Your task to perform on an android device: open app "Google Play Music" (install if not already installed) Image 0: 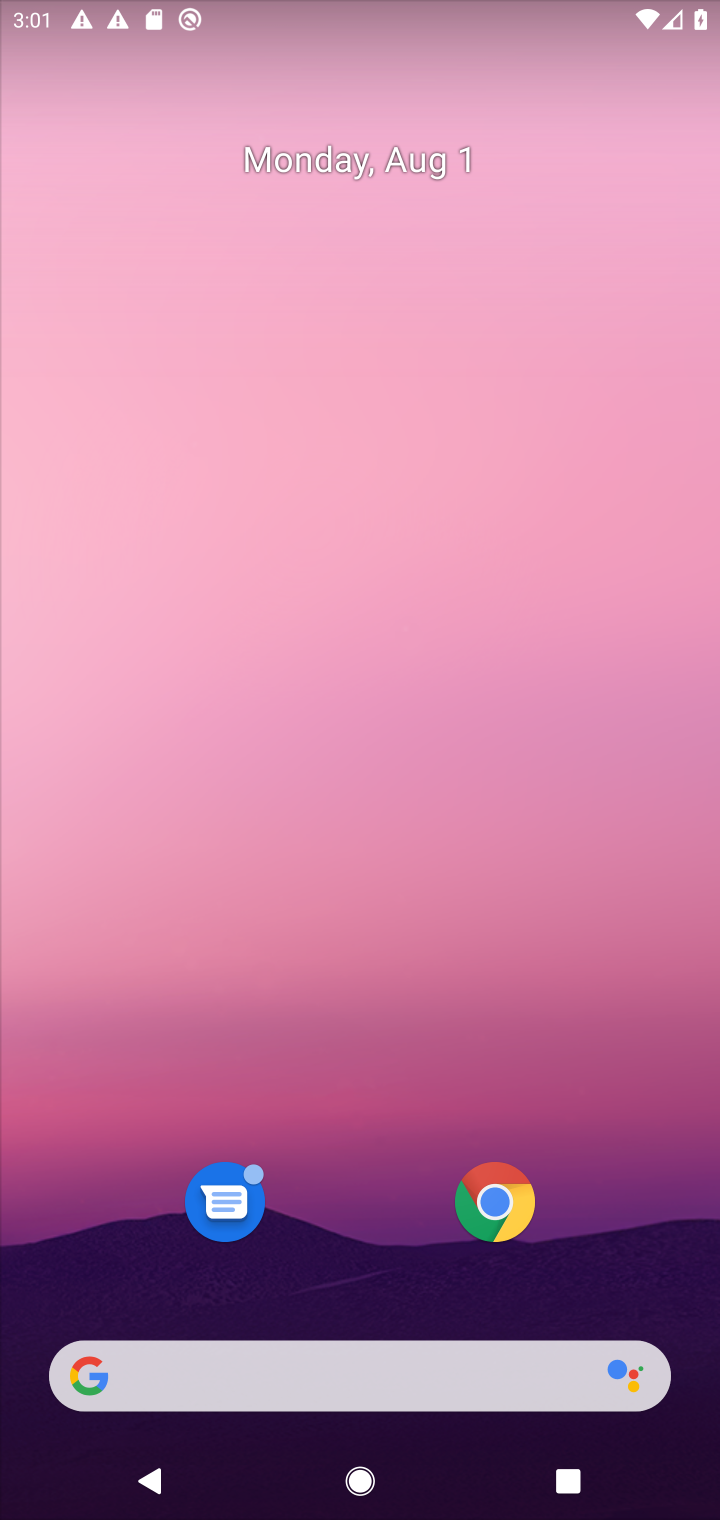
Step 0: drag from (357, 1270) to (384, 263)
Your task to perform on an android device: open app "Google Play Music" (install if not already installed) Image 1: 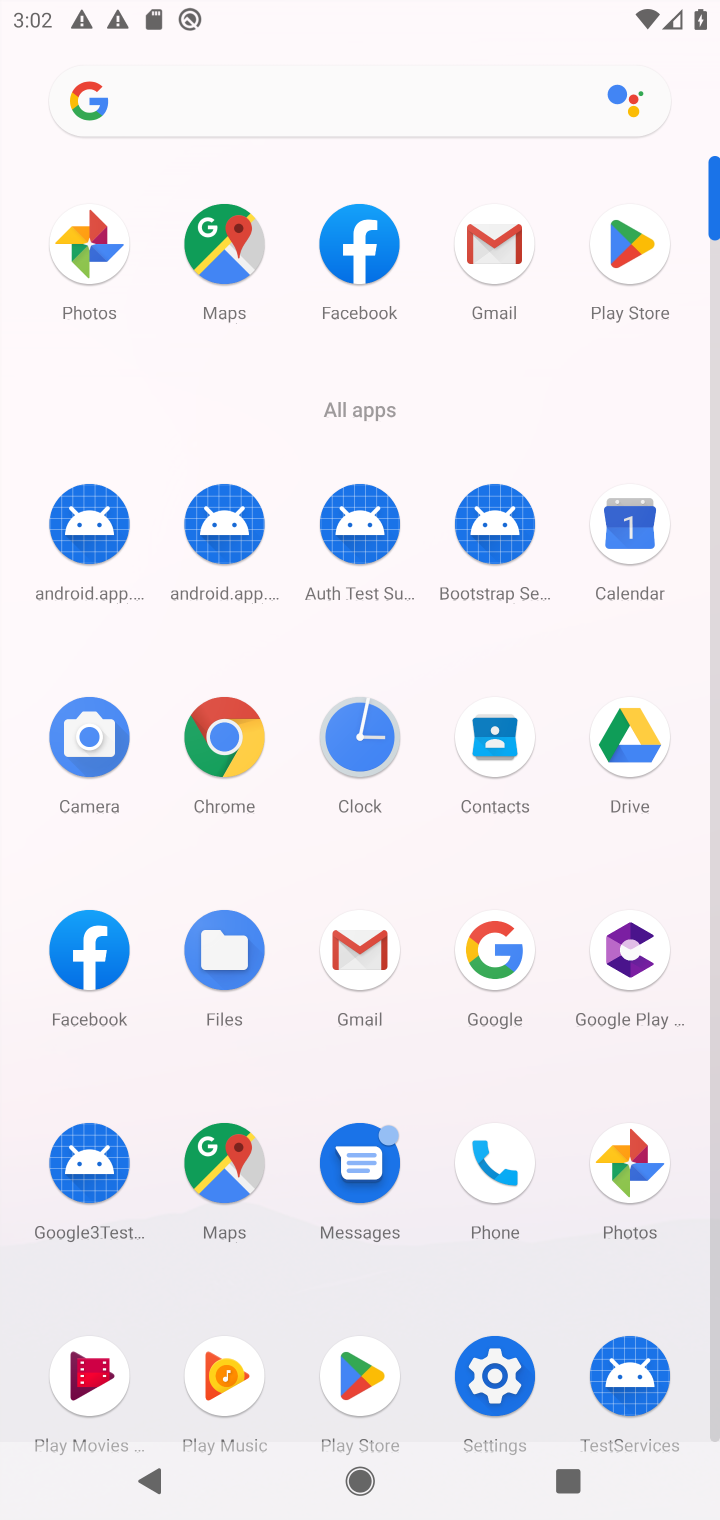
Step 1: click (626, 248)
Your task to perform on an android device: open app "Google Play Music" (install if not already installed) Image 2: 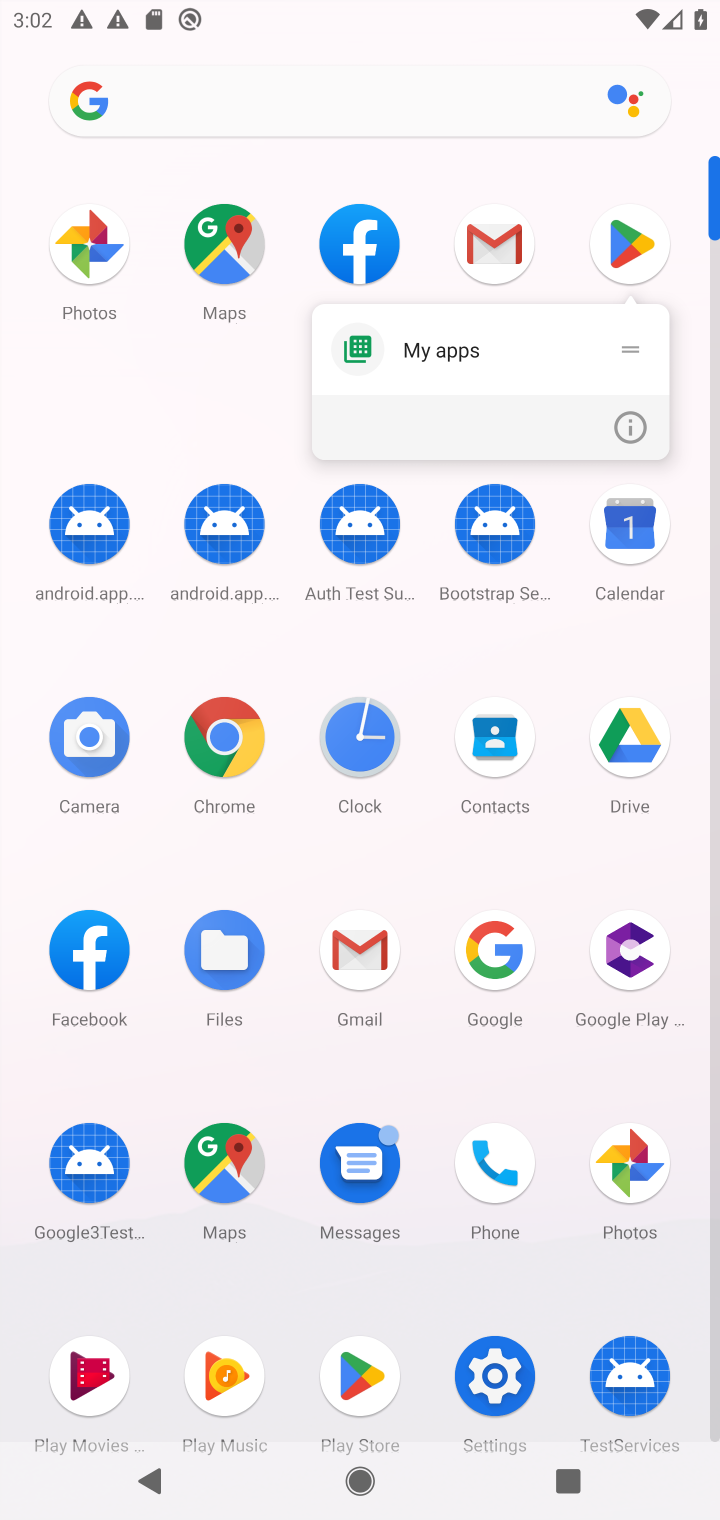
Step 2: click (625, 239)
Your task to perform on an android device: open app "Google Play Music" (install if not already installed) Image 3: 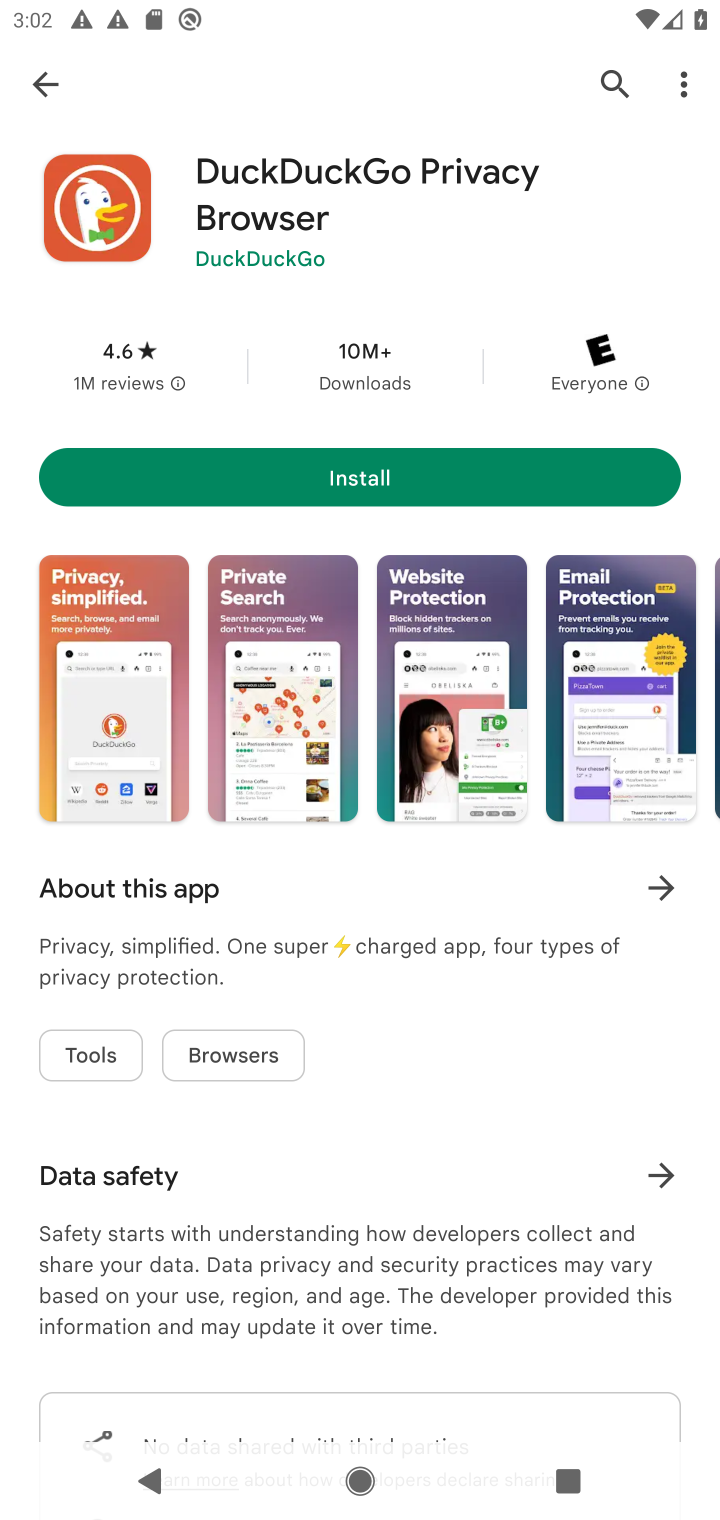
Step 3: click (602, 76)
Your task to perform on an android device: open app "Google Play Music" (install if not already installed) Image 4: 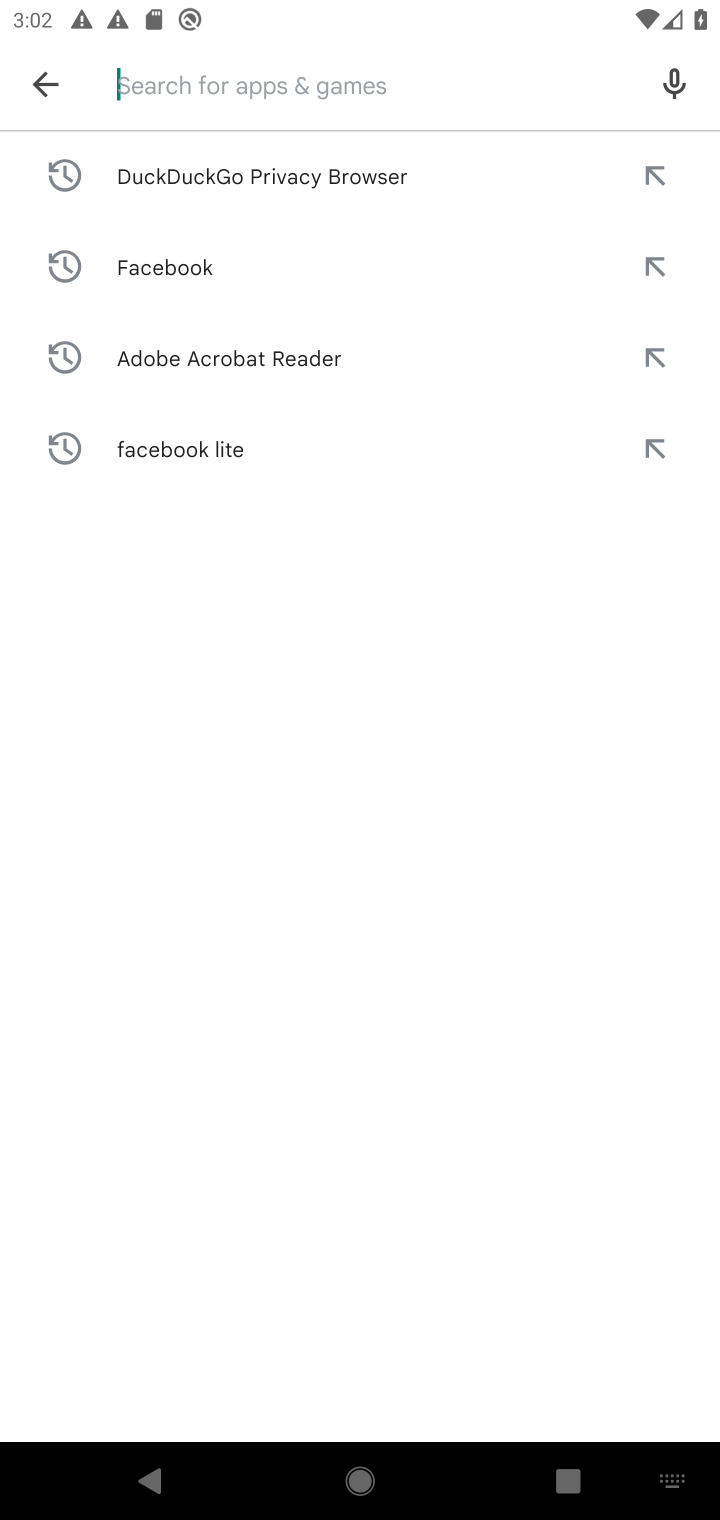
Step 4: type "Google Play Music"
Your task to perform on an android device: open app "Google Play Music" (install if not already installed) Image 5: 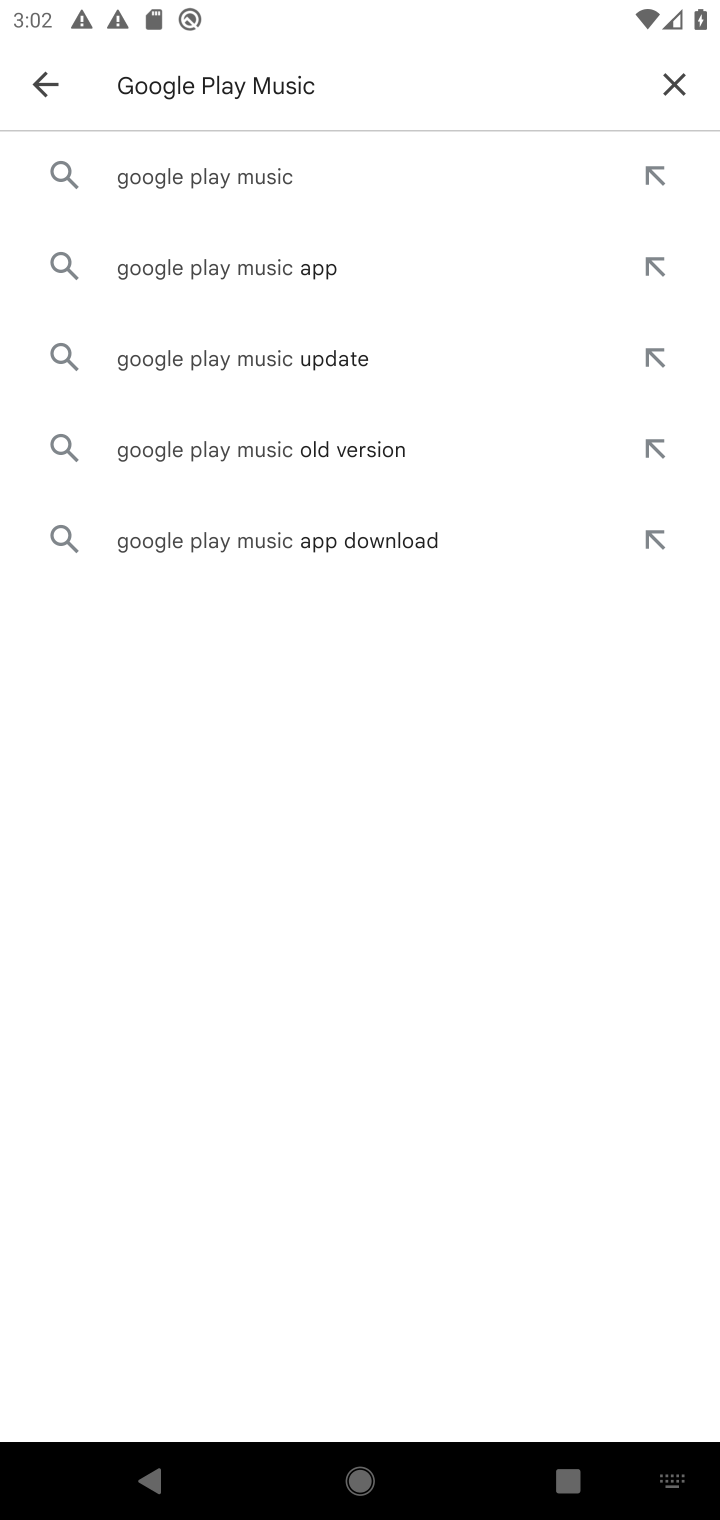
Step 5: press enter
Your task to perform on an android device: open app "Google Play Music" (install if not already installed) Image 6: 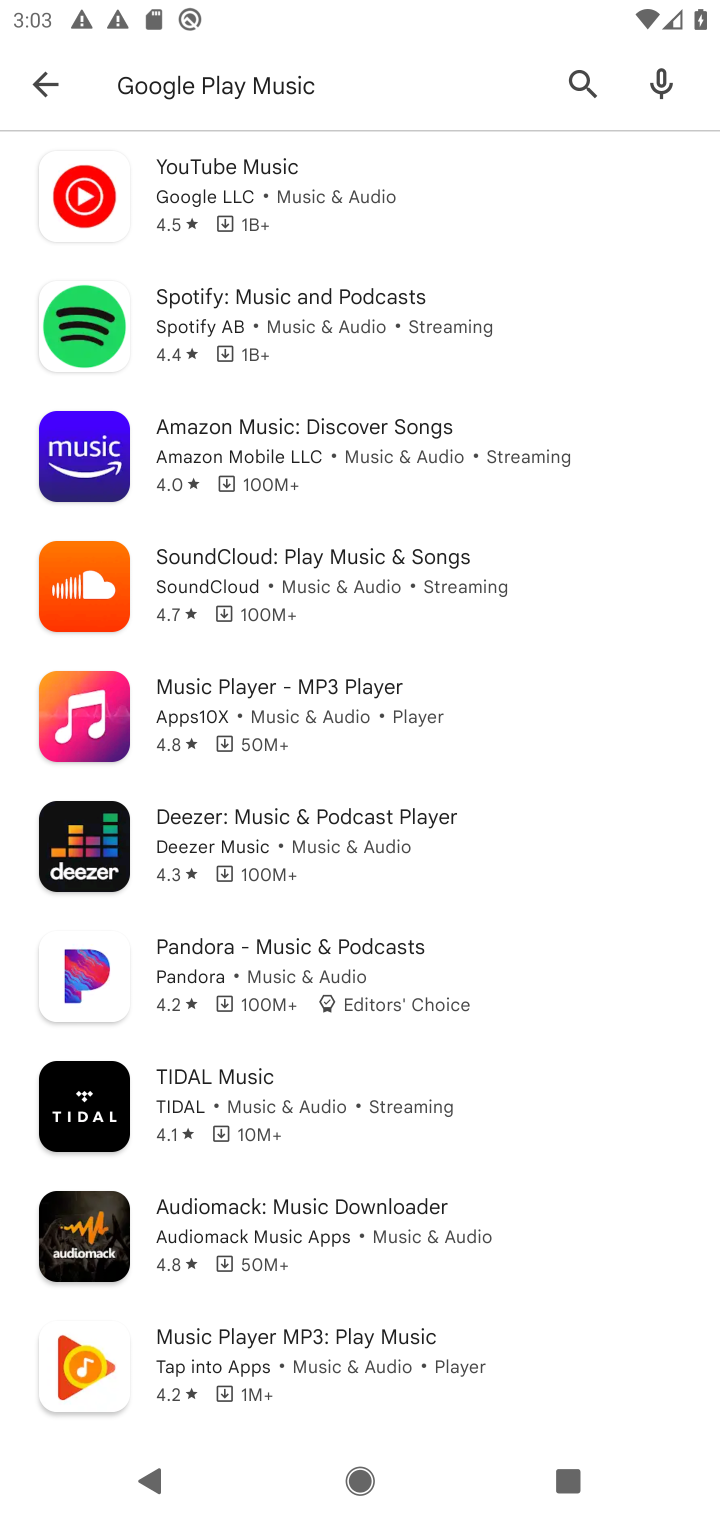
Step 6: click (253, 180)
Your task to perform on an android device: open app "Google Play Music" (install if not already installed) Image 7: 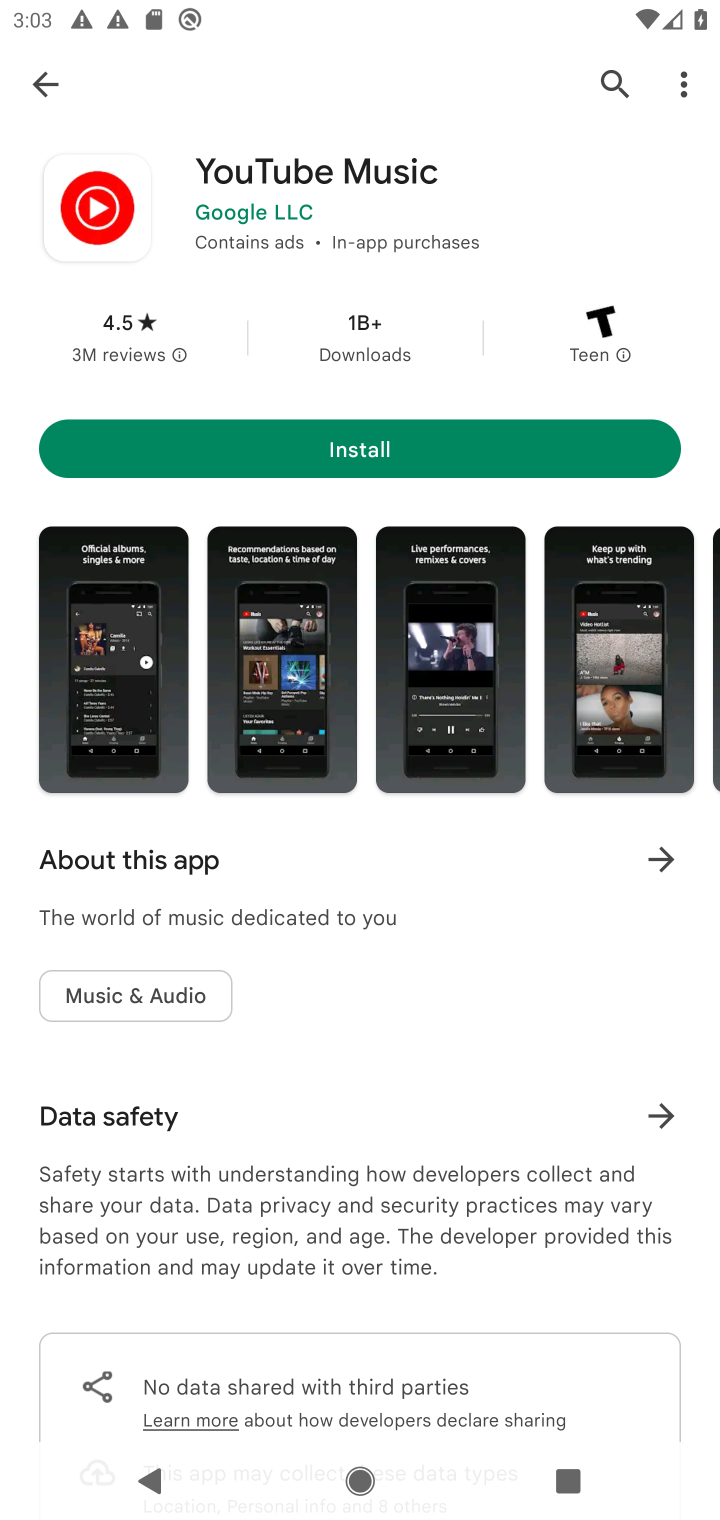
Step 7: click (361, 443)
Your task to perform on an android device: open app "Google Play Music" (install if not already installed) Image 8: 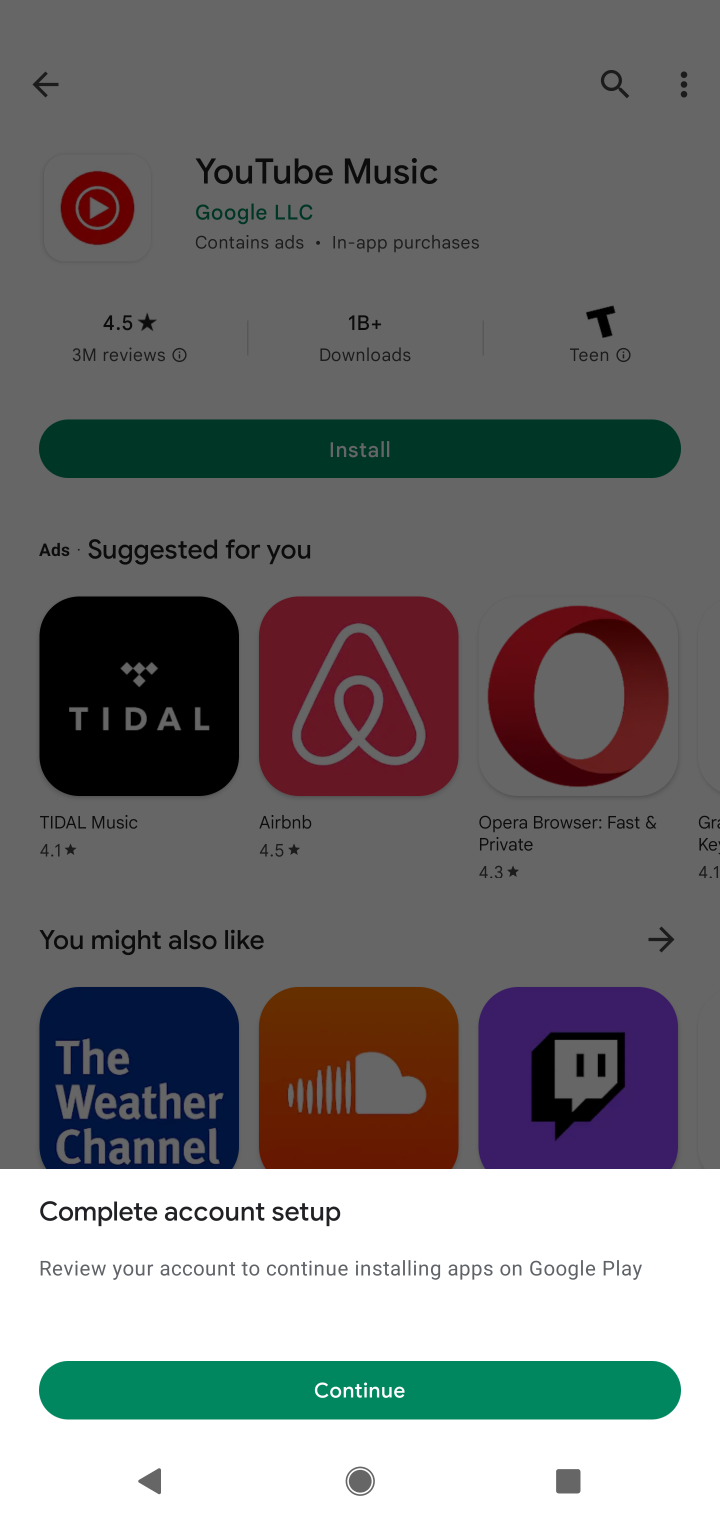
Step 8: click (421, 1379)
Your task to perform on an android device: open app "Google Play Music" (install if not already installed) Image 9: 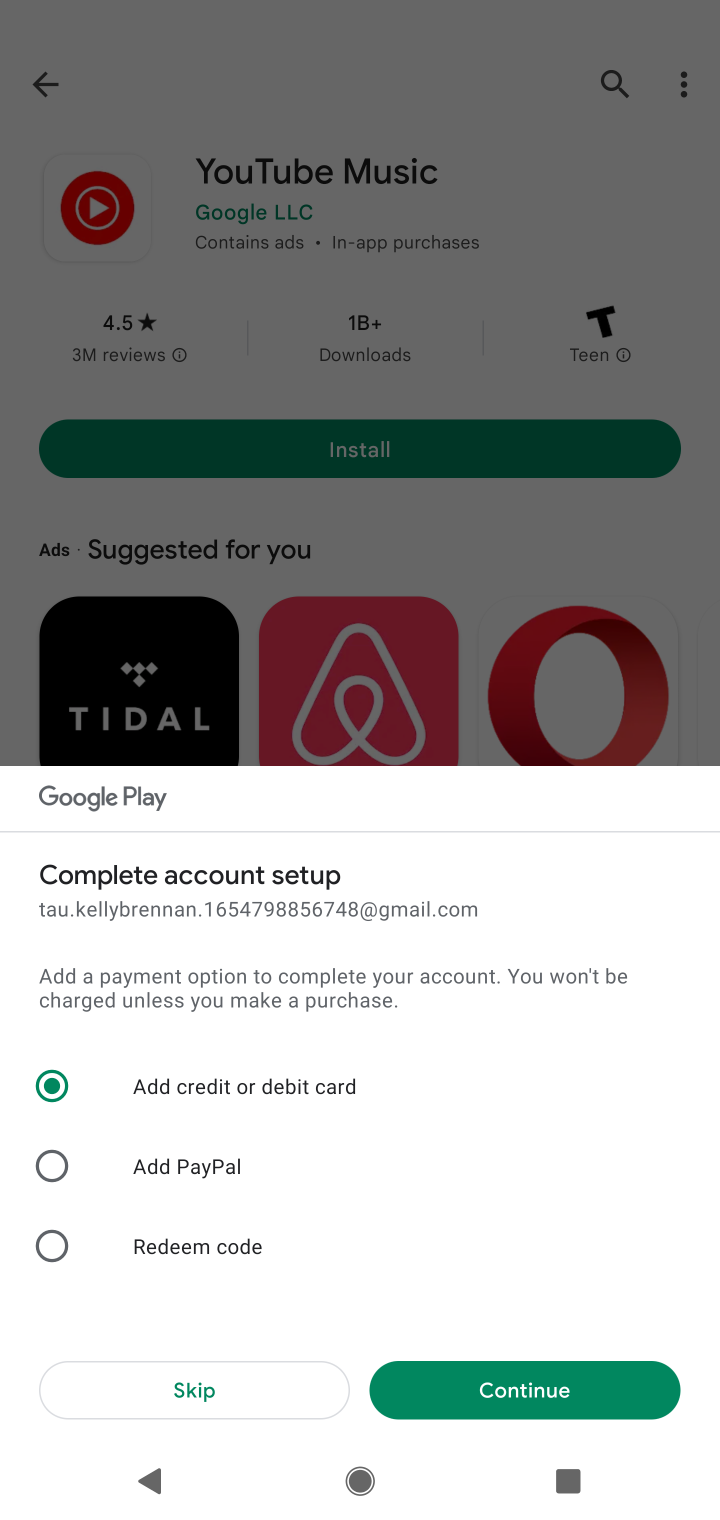
Step 9: click (236, 1393)
Your task to perform on an android device: open app "Google Play Music" (install if not already installed) Image 10: 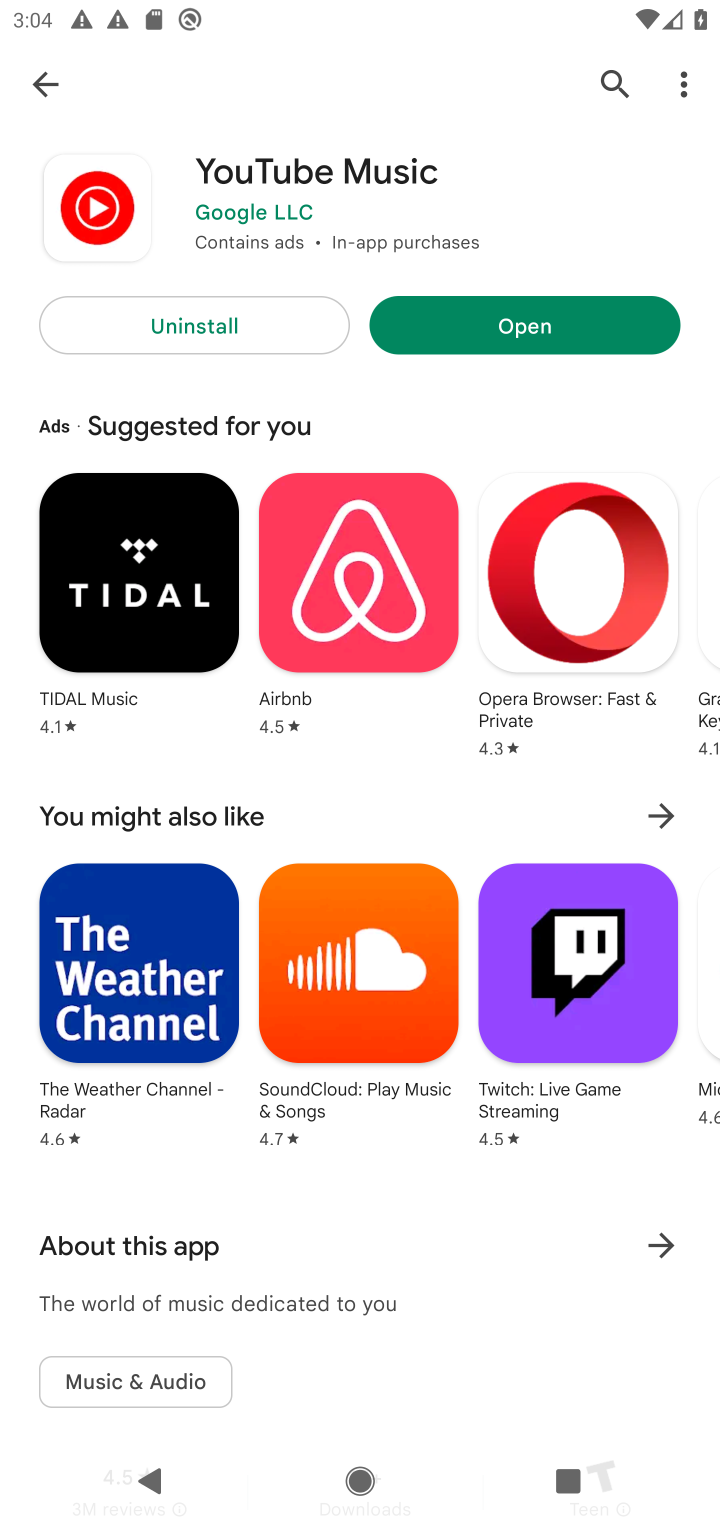
Step 10: click (583, 313)
Your task to perform on an android device: open app "Google Play Music" (install if not already installed) Image 11: 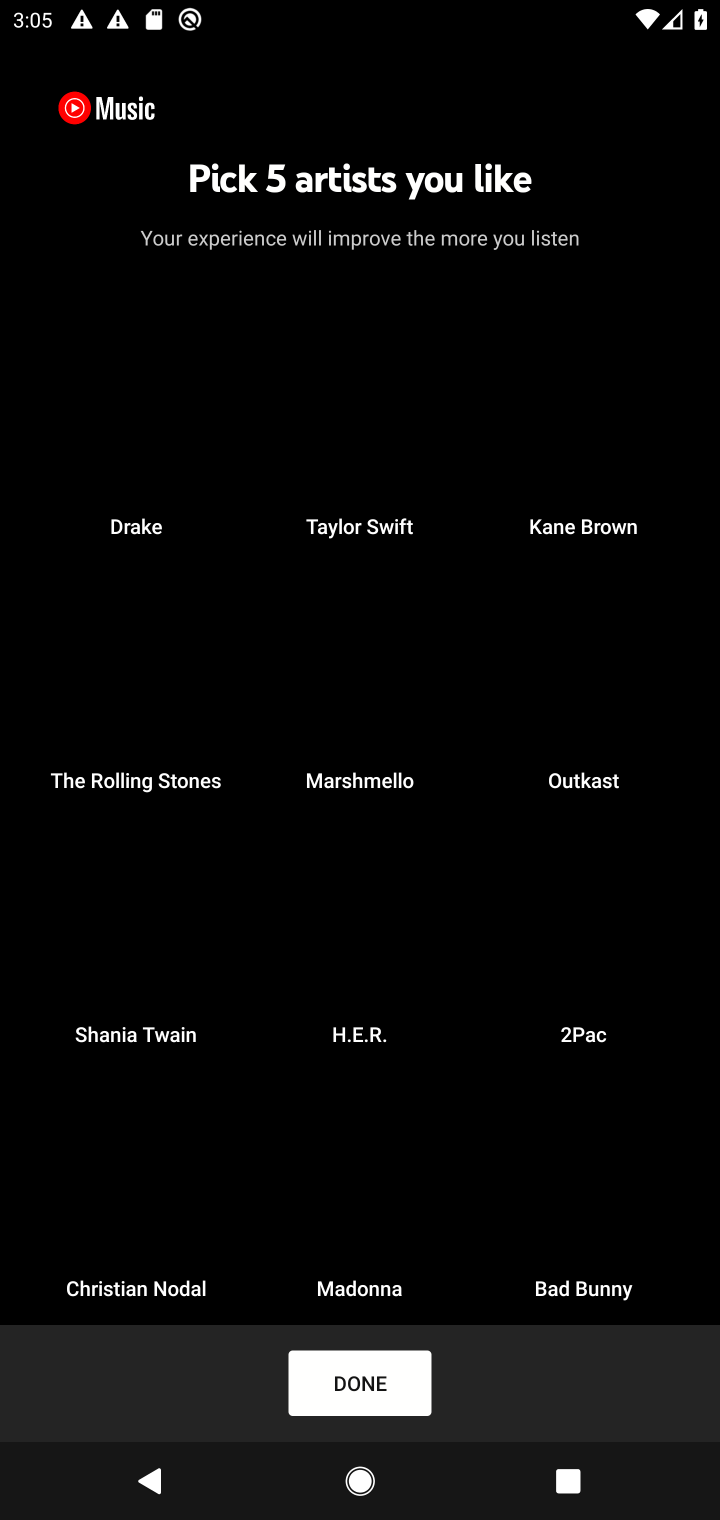
Step 11: task complete